Your task to perform on an android device: toggle javascript in the chrome app Image 0: 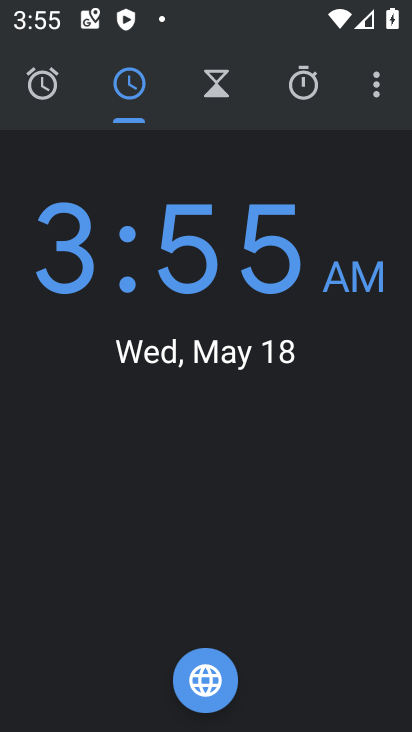
Step 0: press home button
Your task to perform on an android device: toggle javascript in the chrome app Image 1: 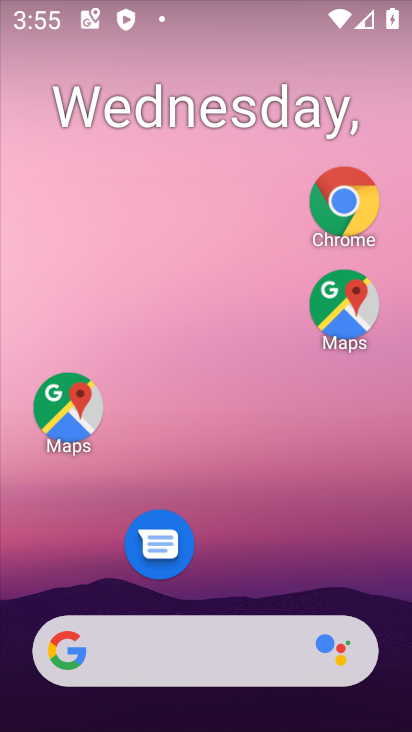
Step 1: click (340, 229)
Your task to perform on an android device: toggle javascript in the chrome app Image 2: 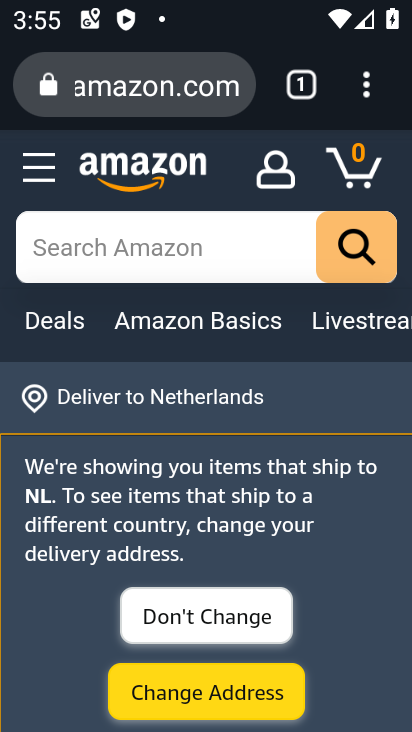
Step 2: click (362, 90)
Your task to perform on an android device: toggle javascript in the chrome app Image 3: 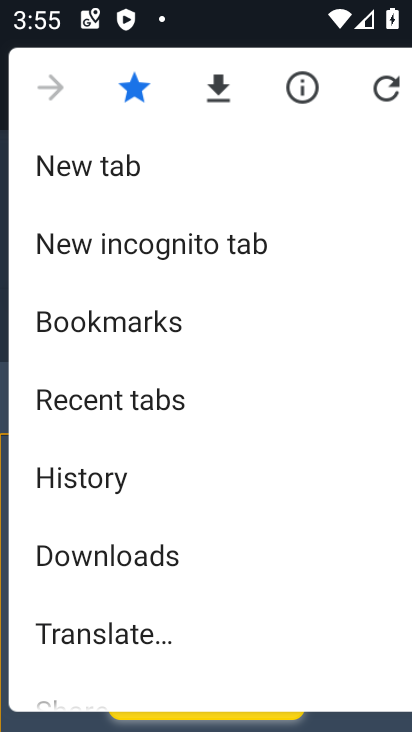
Step 3: drag from (116, 657) to (154, 291)
Your task to perform on an android device: toggle javascript in the chrome app Image 4: 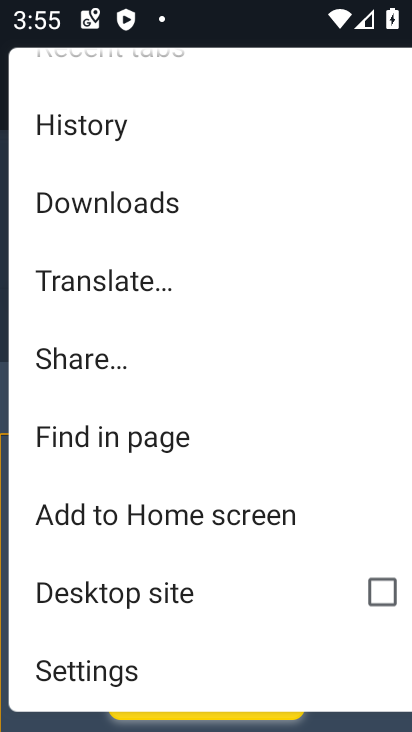
Step 4: click (107, 682)
Your task to perform on an android device: toggle javascript in the chrome app Image 5: 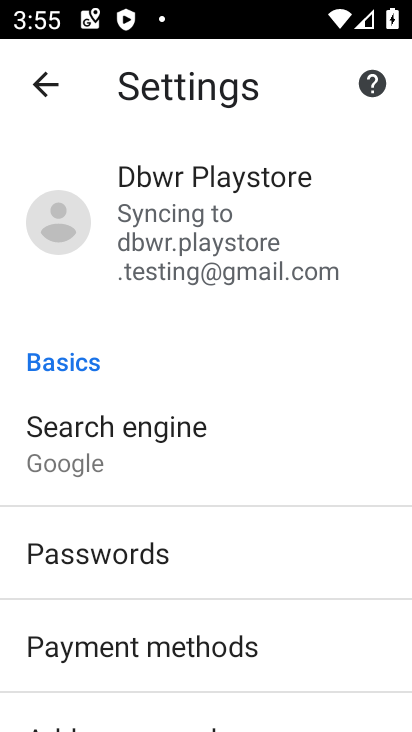
Step 5: drag from (135, 672) to (169, 400)
Your task to perform on an android device: toggle javascript in the chrome app Image 6: 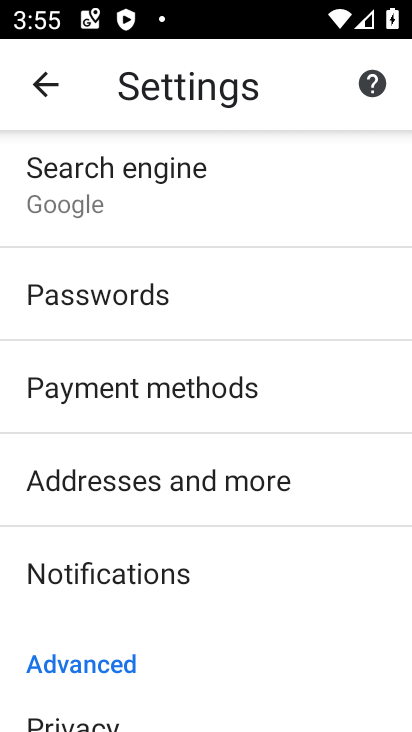
Step 6: drag from (103, 656) to (148, 376)
Your task to perform on an android device: toggle javascript in the chrome app Image 7: 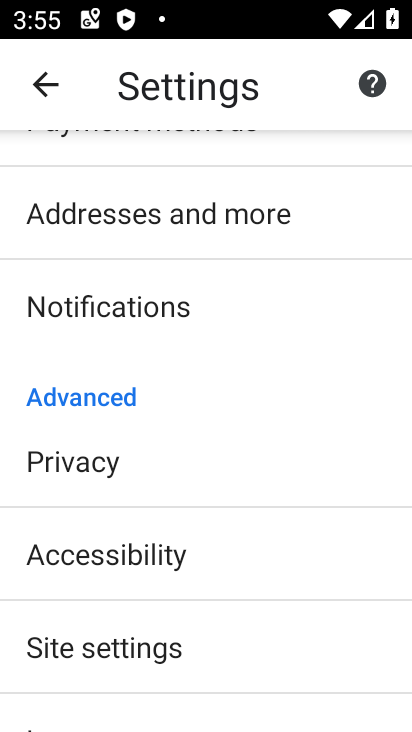
Step 7: drag from (124, 575) to (163, 372)
Your task to perform on an android device: toggle javascript in the chrome app Image 8: 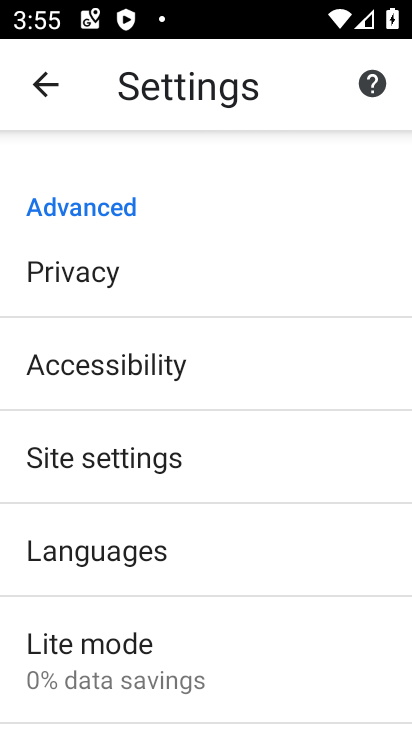
Step 8: click (93, 480)
Your task to perform on an android device: toggle javascript in the chrome app Image 9: 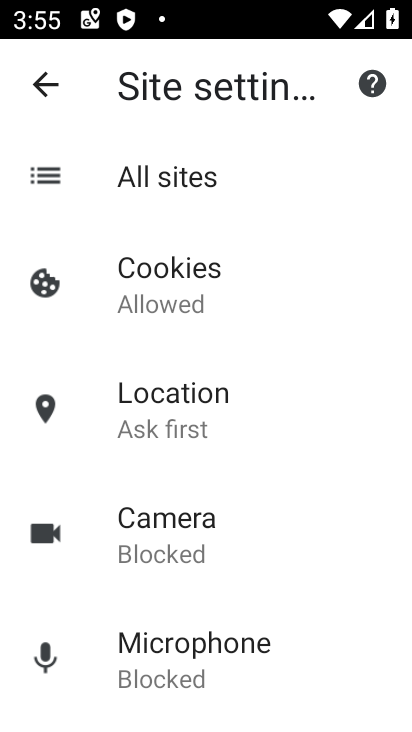
Step 9: drag from (152, 609) to (181, 263)
Your task to perform on an android device: toggle javascript in the chrome app Image 10: 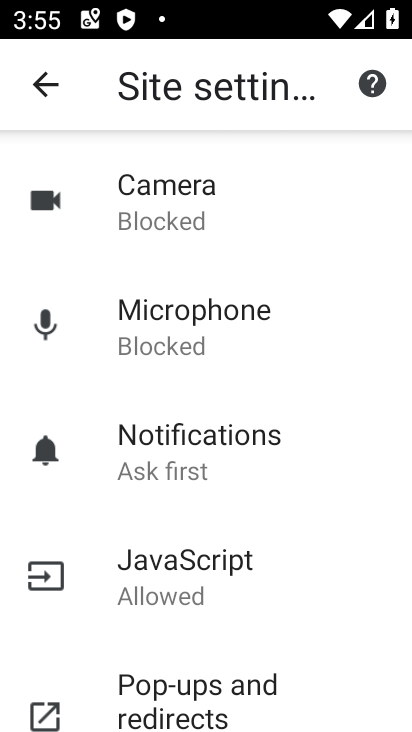
Step 10: click (184, 557)
Your task to perform on an android device: toggle javascript in the chrome app Image 11: 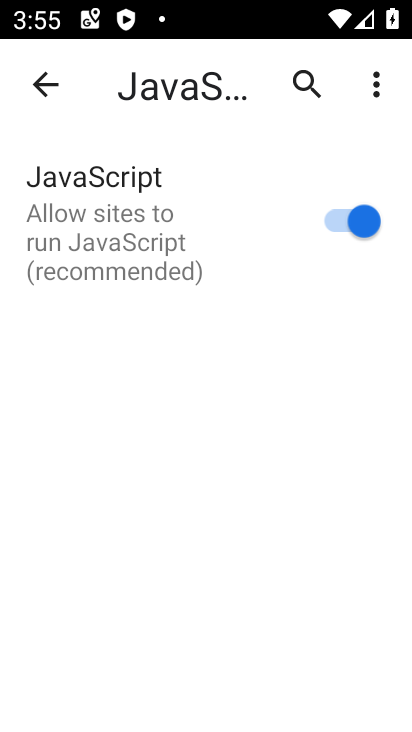
Step 11: click (333, 229)
Your task to perform on an android device: toggle javascript in the chrome app Image 12: 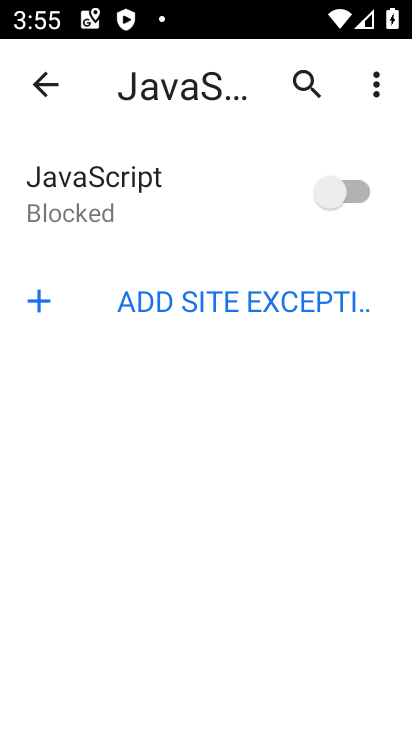
Step 12: task complete